Your task to perform on an android device: Go to privacy settings Image 0: 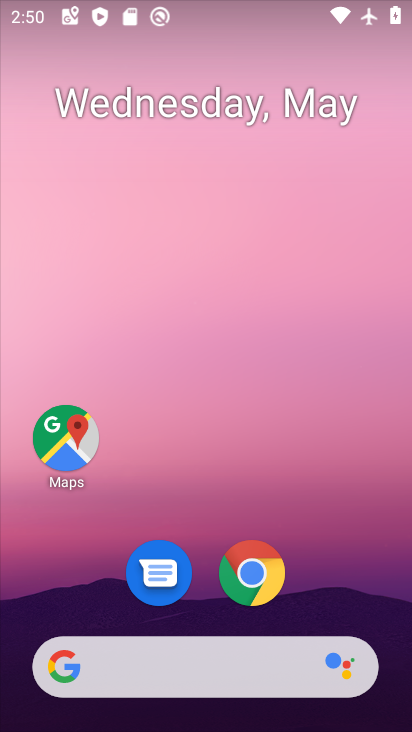
Step 0: drag from (343, 482) to (405, 49)
Your task to perform on an android device: Go to privacy settings Image 1: 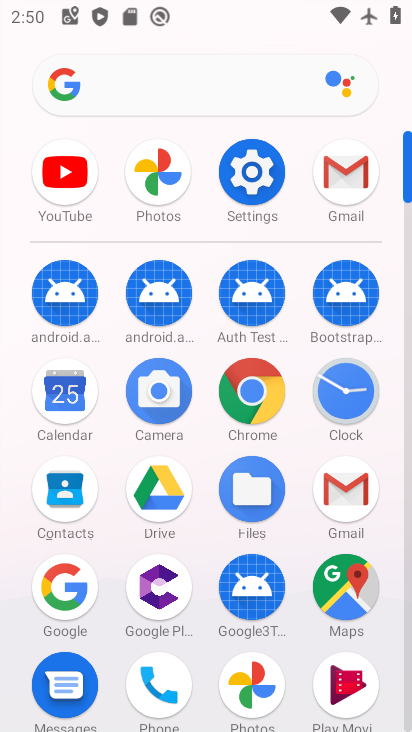
Step 1: click (238, 184)
Your task to perform on an android device: Go to privacy settings Image 2: 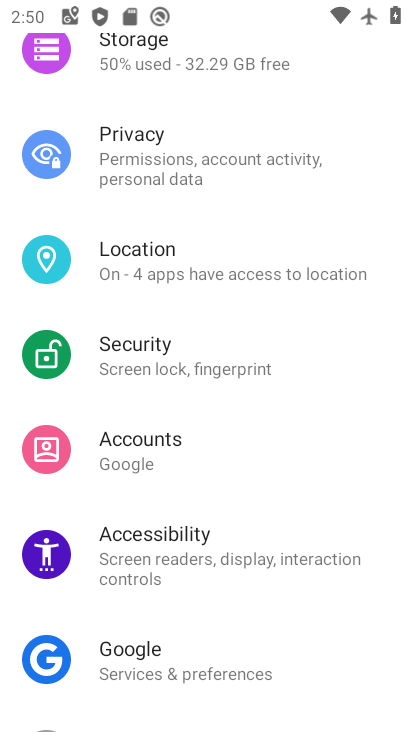
Step 2: click (175, 152)
Your task to perform on an android device: Go to privacy settings Image 3: 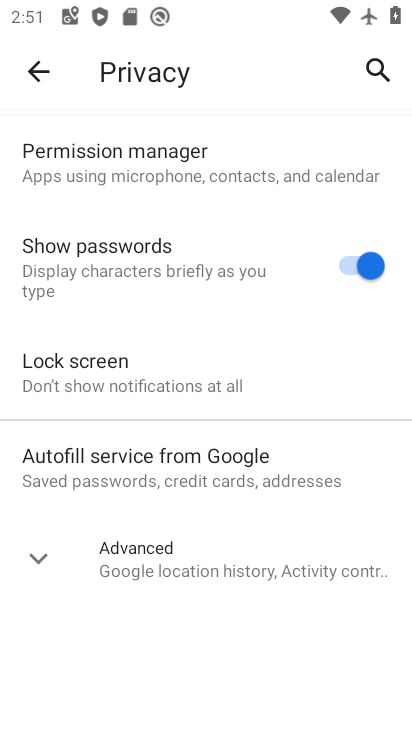
Step 3: task complete